Your task to perform on an android device: Open the map Image 0: 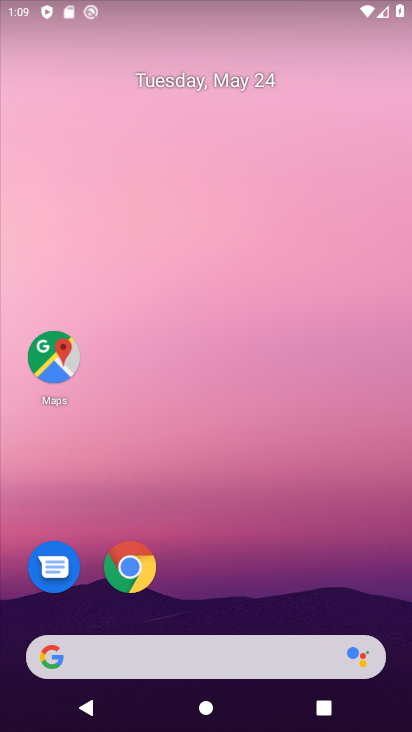
Step 0: click (71, 375)
Your task to perform on an android device: Open the map Image 1: 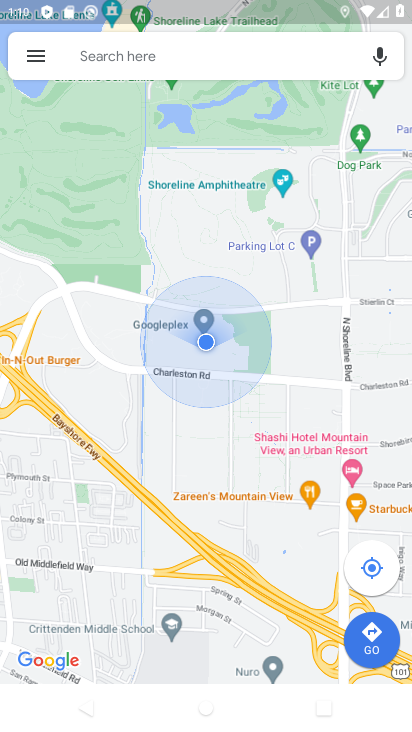
Step 1: task complete